Your task to perform on an android device: search for 2021 honda civic Image 0: 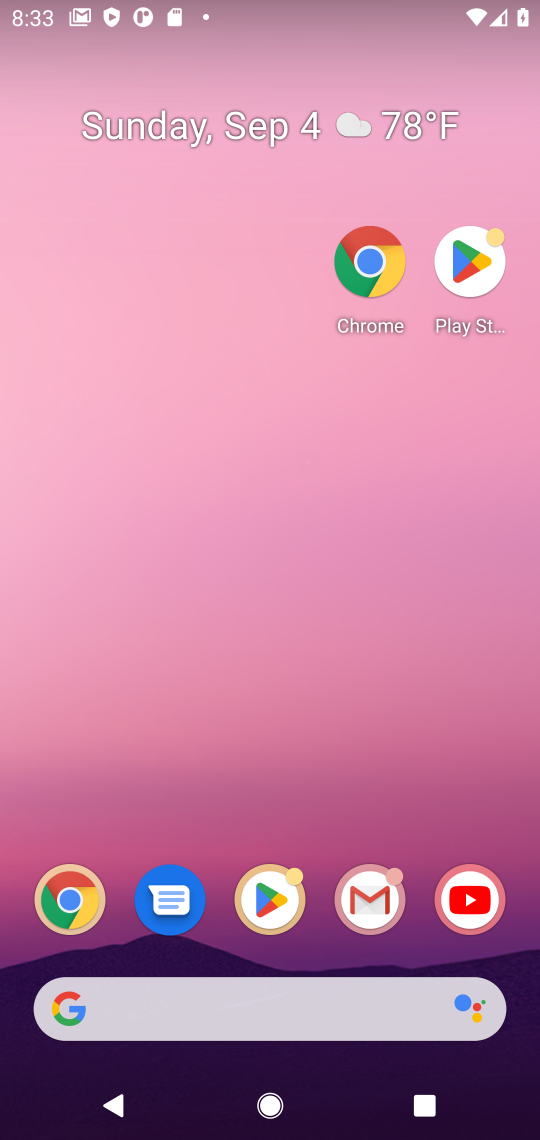
Step 0: click (305, 998)
Your task to perform on an android device: search for 2021 honda civic Image 1: 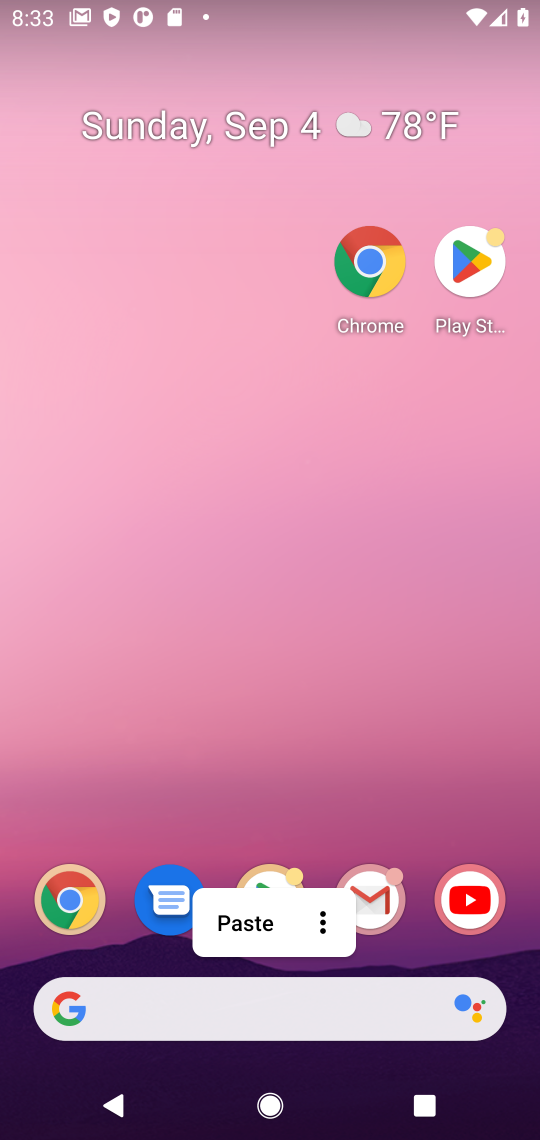
Step 1: click (305, 998)
Your task to perform on an android device: search for 2021 honda civic Image 2: 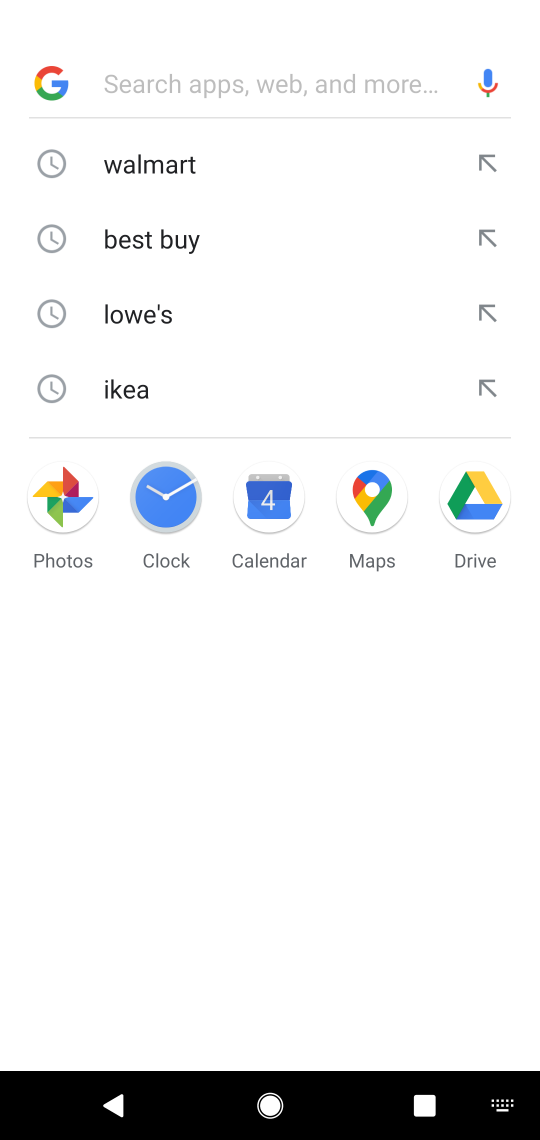
Step 2: type "2021 honda civic"
Your task to perform on an android device: search for 2021 honda civic Image 3: 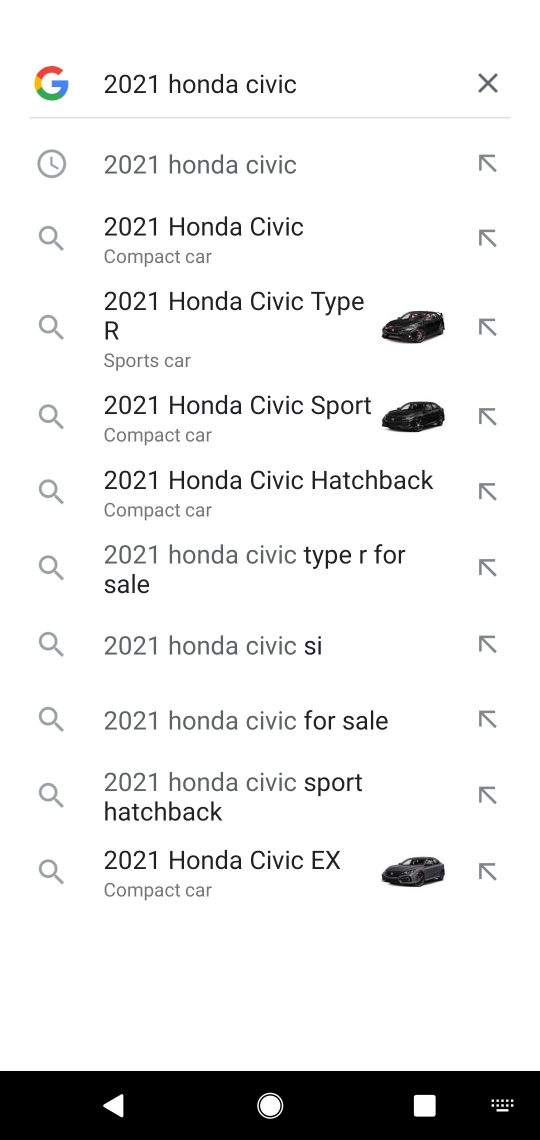
Step 3: click (265, 164)
Your task to perform on an android device: search for 2021 honda civic Image 4: 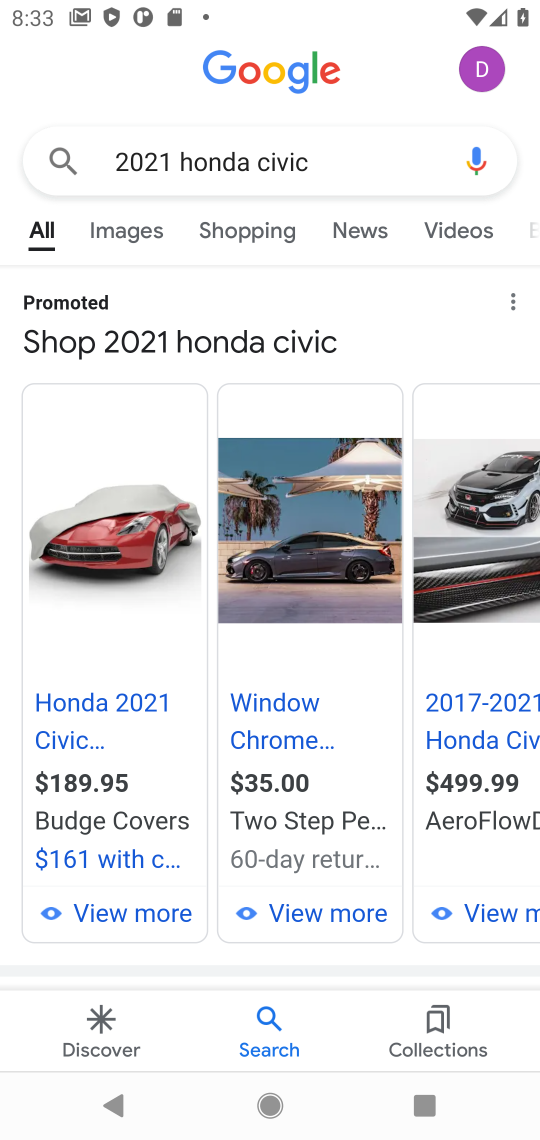
Step 4: task complete